Your task to perform on an android device: Open Wikipedia Image 0: 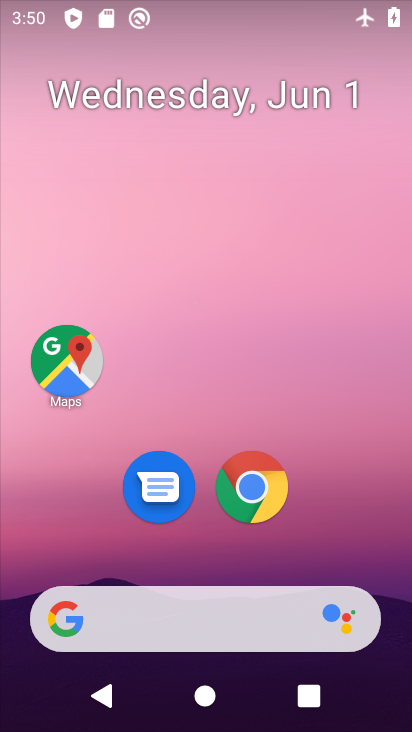
Step 0: drag from (217, 511) to (213, 343)
Your task to perform on an android device: Open Wikipedia Image 1: 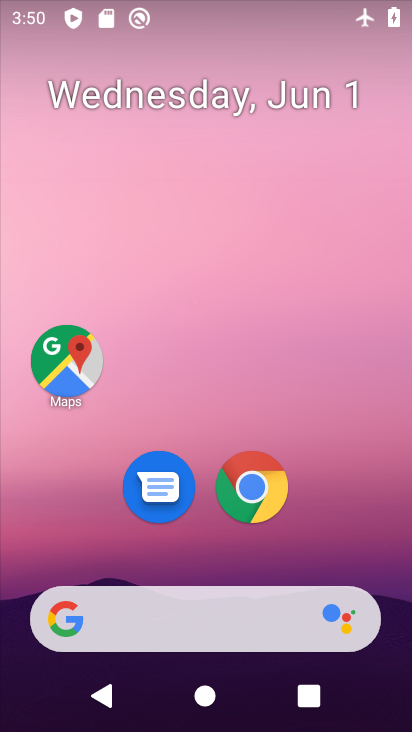
Step 1: drag from (244, 579) to (225, 225)
Your task to perform on an android device: Open Wikipedia Image 2: 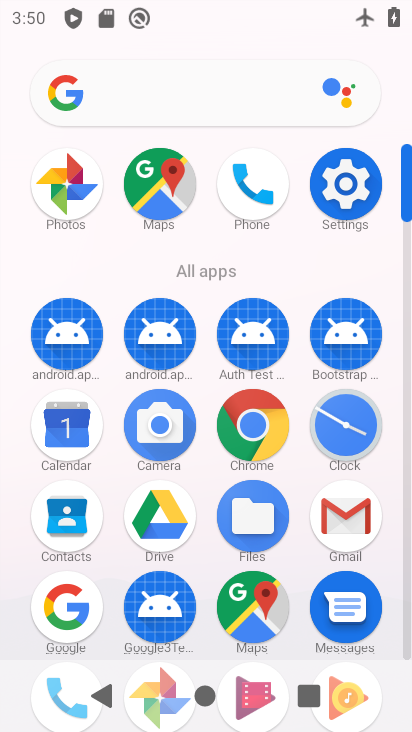
Step 2: click (244, 196)
Your task to perform on an android device: Open Wikipedia Image 3: 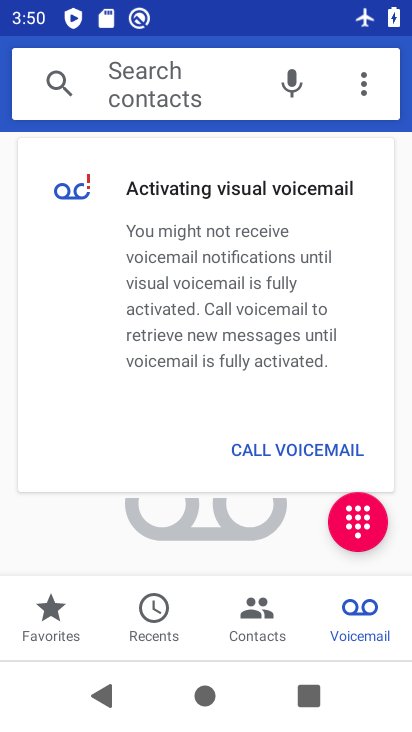
Step 3: click (352, 627)
Your task to perform on an android device: Open Wikipedia Image 4: 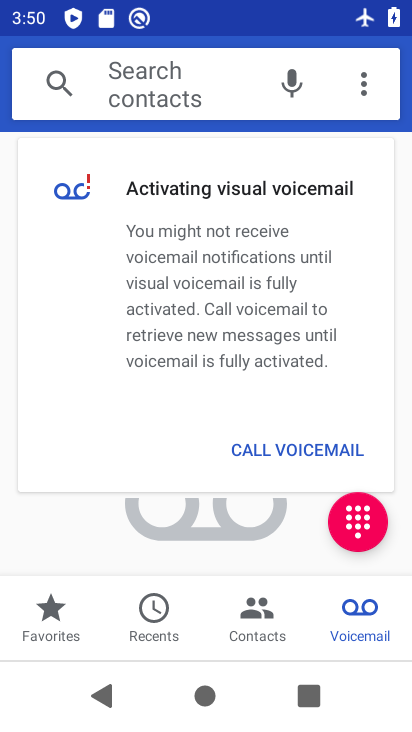
Step 4: task complete